Your task to perform on an android device: open app "Chime – Mobile Banking" Image 0: 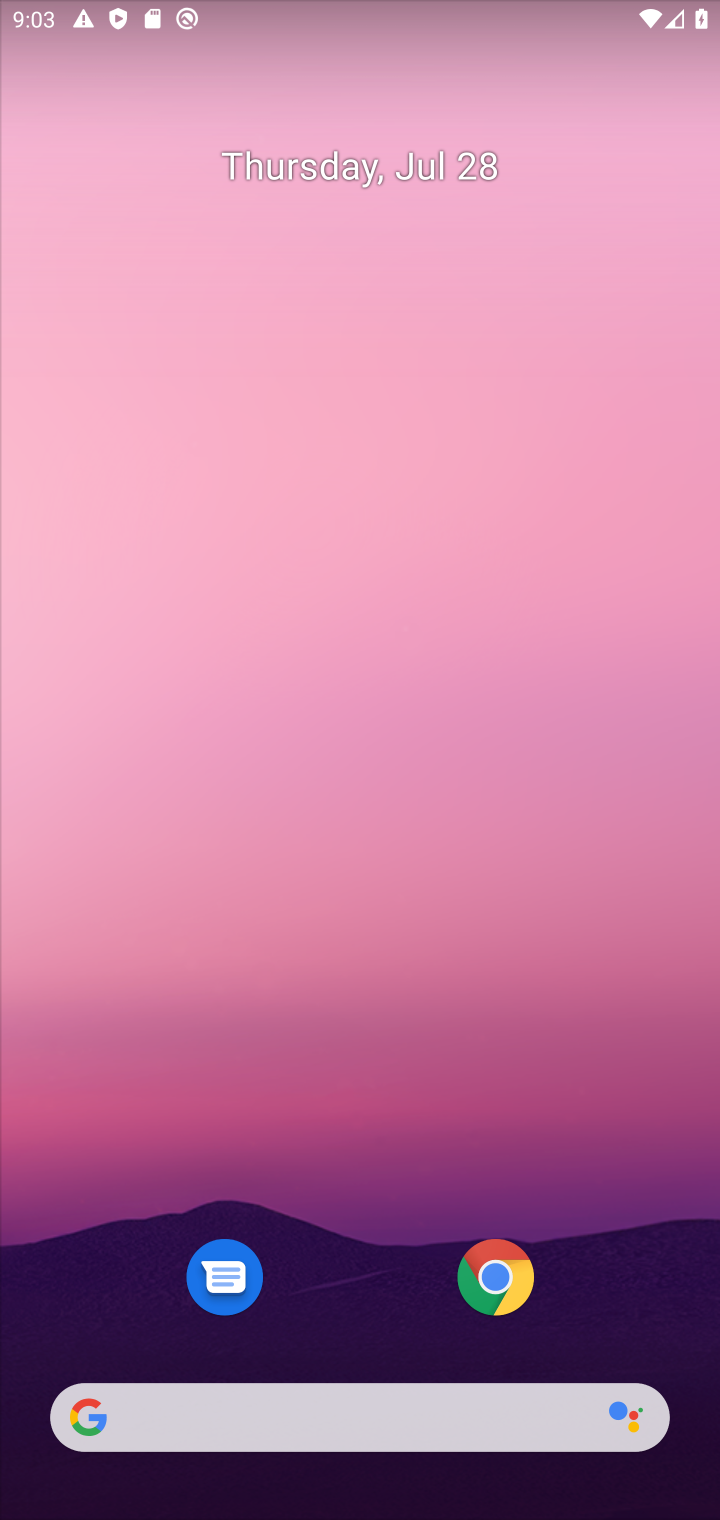
Step 0: drag from (423, 1511) to (379, 145)
Your task to perform on an android device: open app "Chime – Mobile Banking" Image 1: 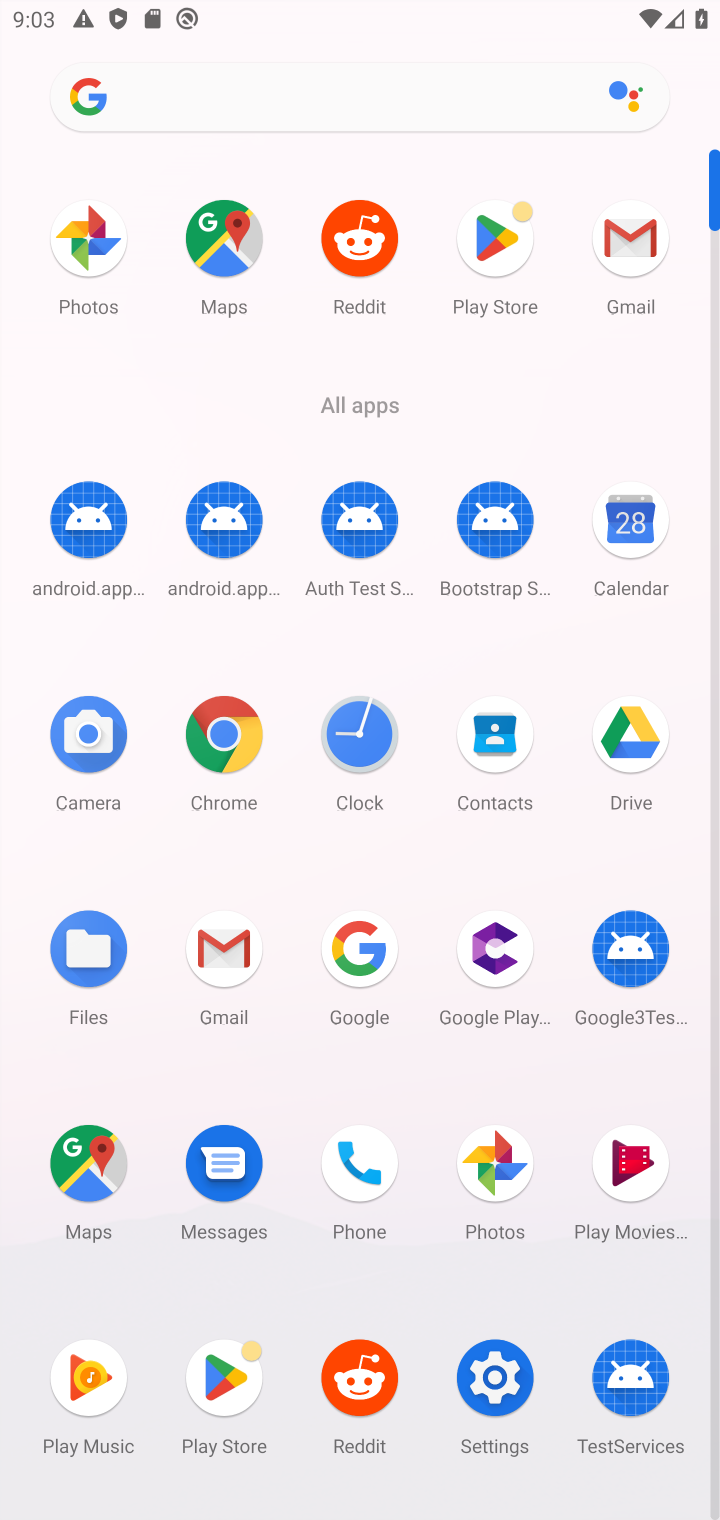
Step 1: click (229, 1372)
Your task to perform on an android device: open app "Chime – Mobile Banking" Image 2: 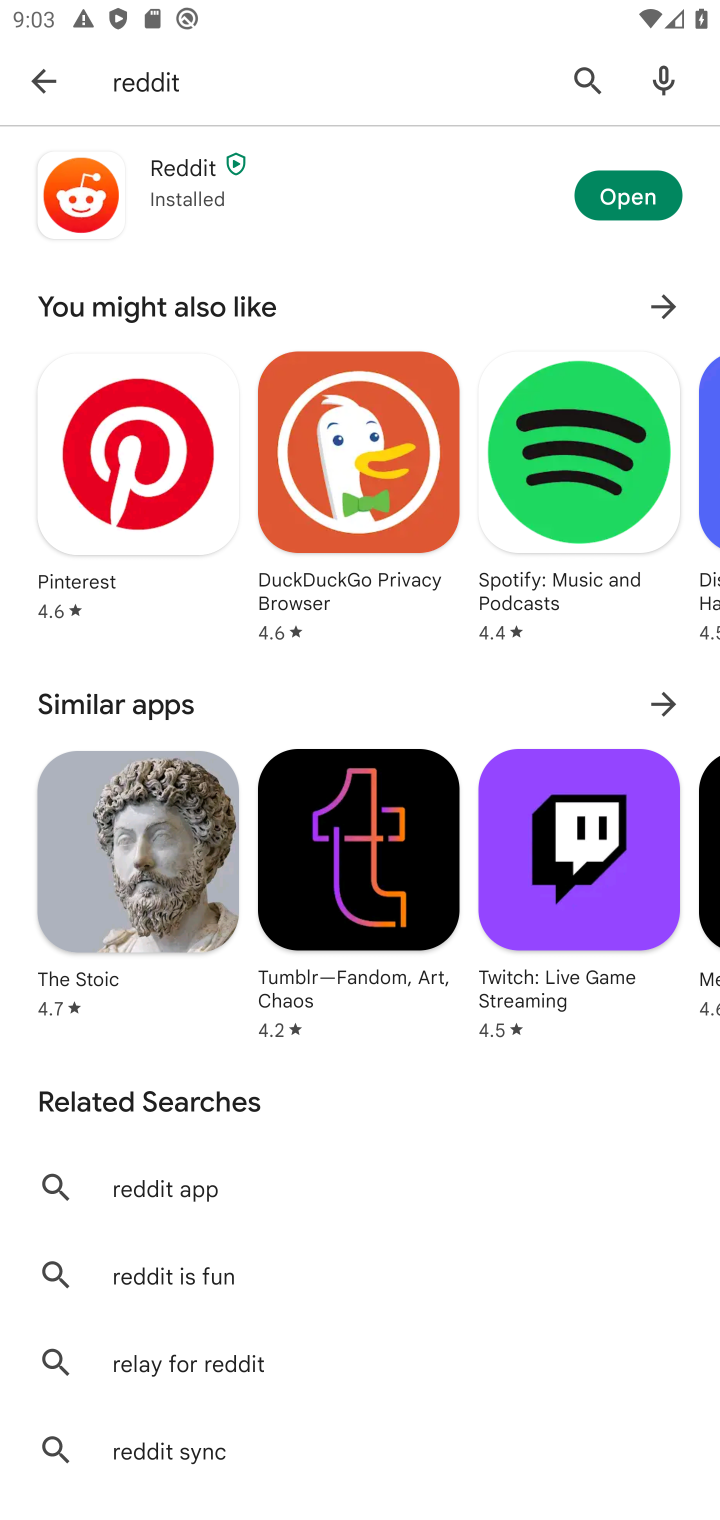
Step 2: click (578, 69)
Your task to perform on an android device: open app "Chime – Mobile Banking" Image 3: 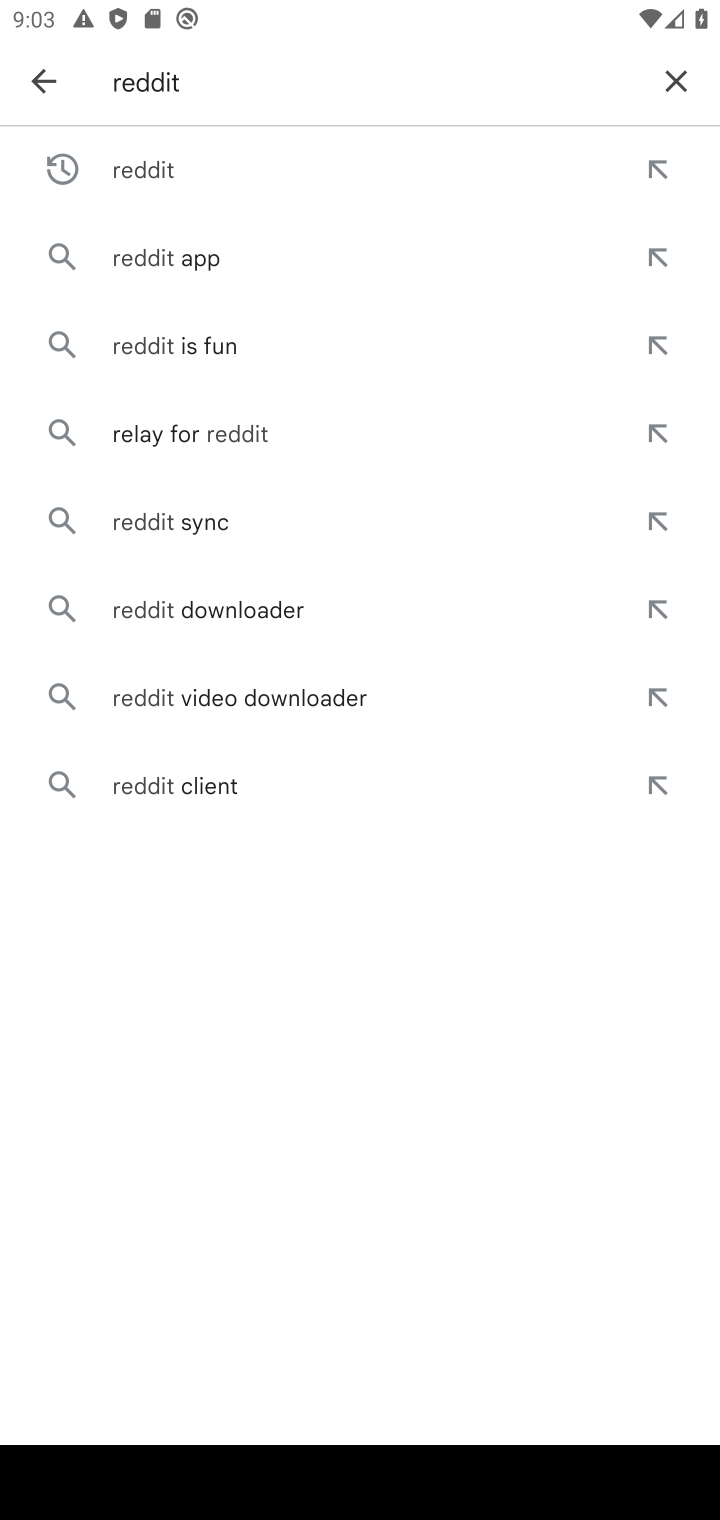
Step 3: click (661, 78)
Your task to perform on an android device: open app "Chime – Mobile Banking" Image 4: 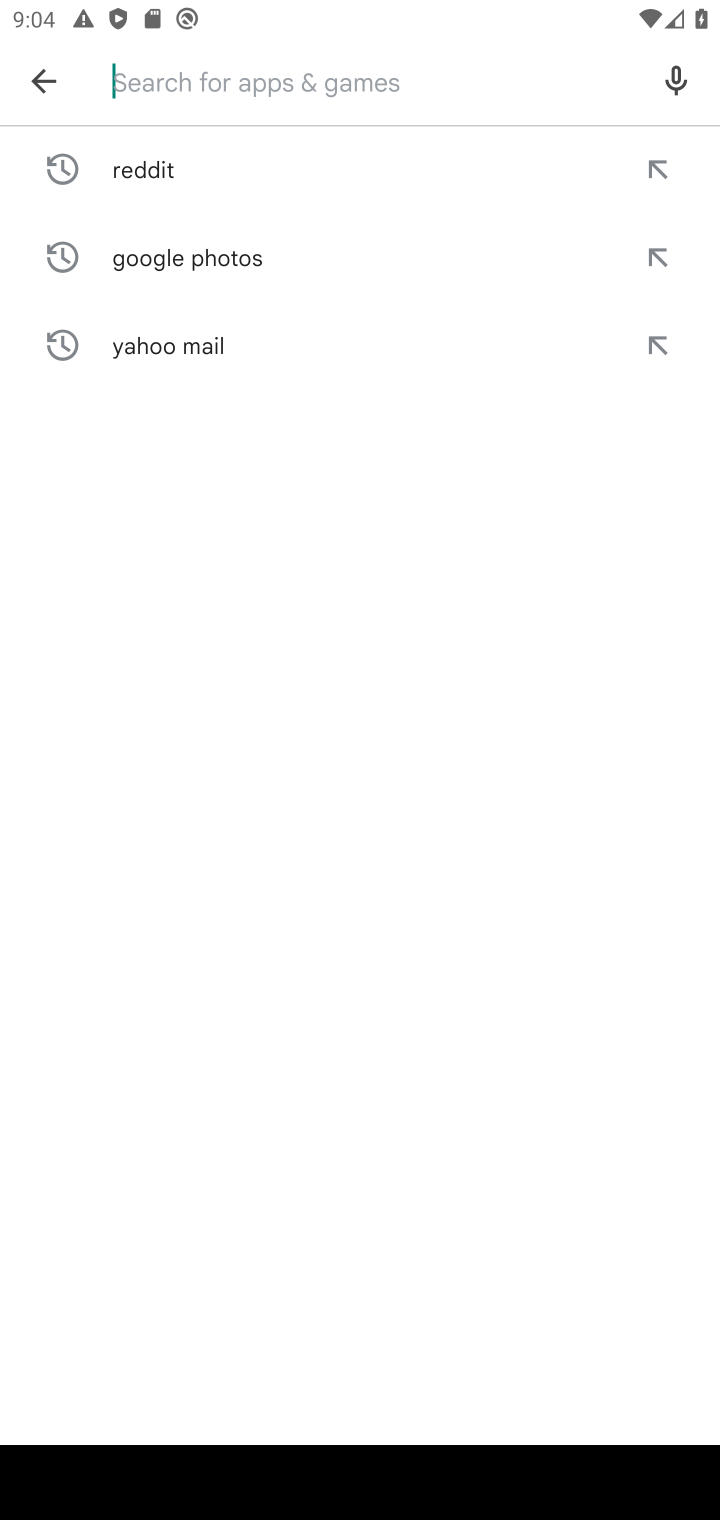
Step 4: type "Chime - Mobile Banking"
Your task to perform on an android device: open app "Chime – Mobile Banking" Image 5: 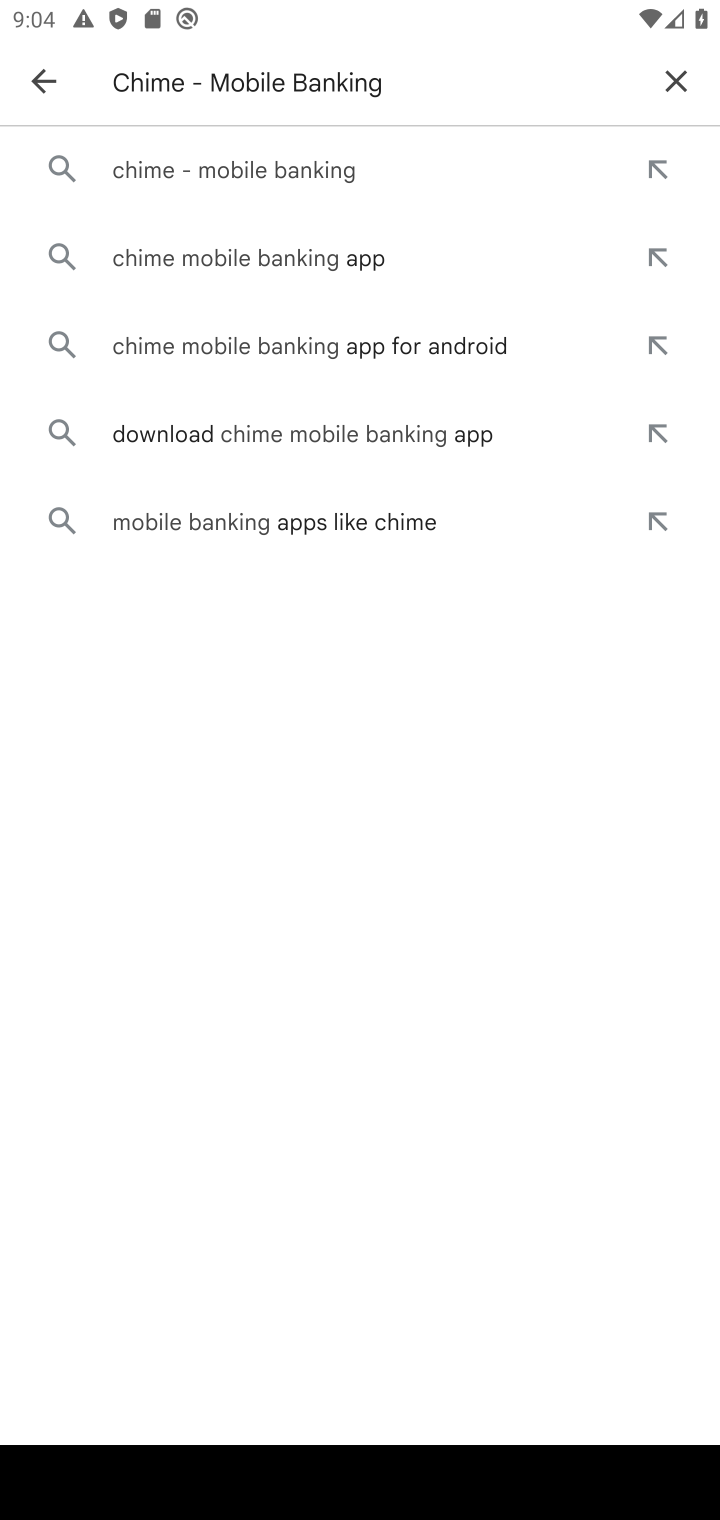
Step 5: click (299, 173)
Your task to perform on an android device: open app "Chime – Mobile Banking" Image 6: 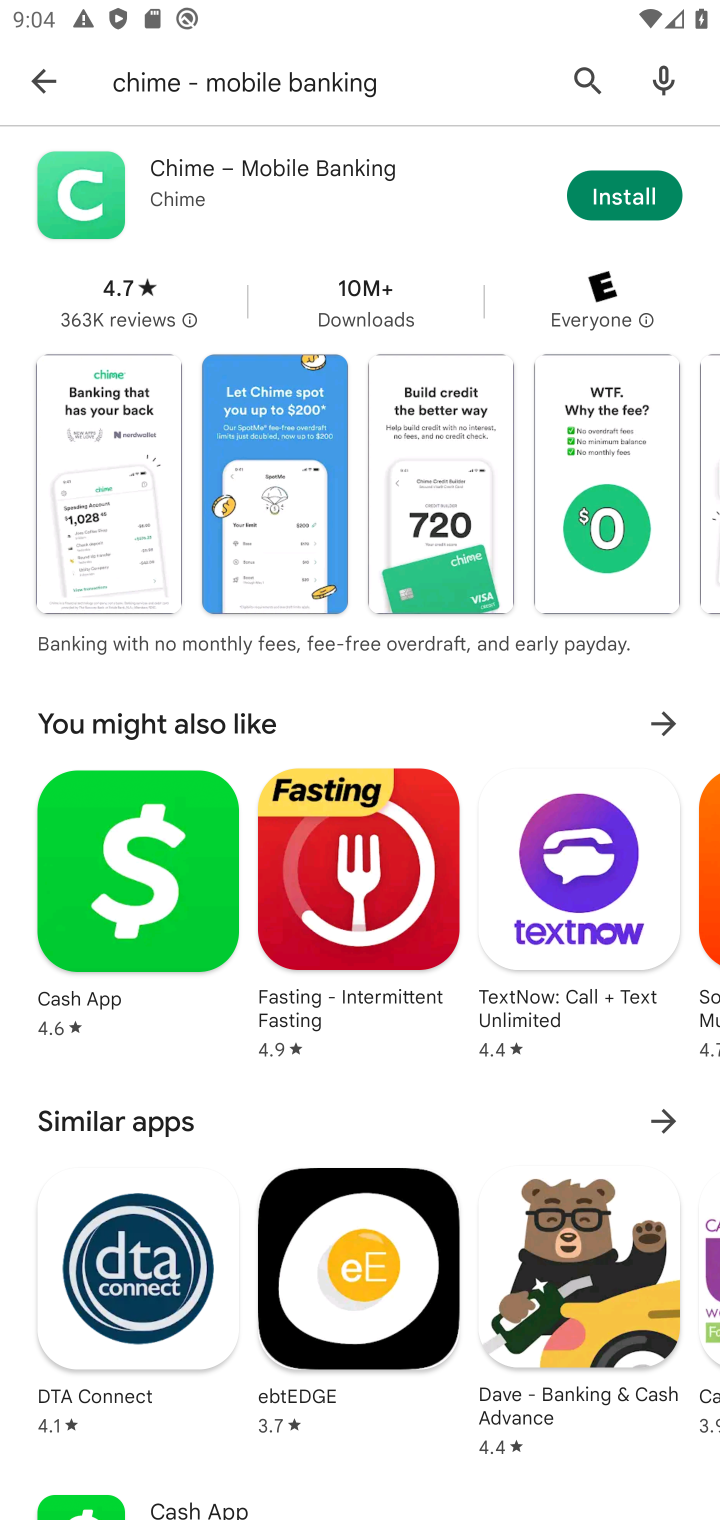
Step 6: task complete